Your task to perform on an android device: turn on javascript in the chrome app Image 0: 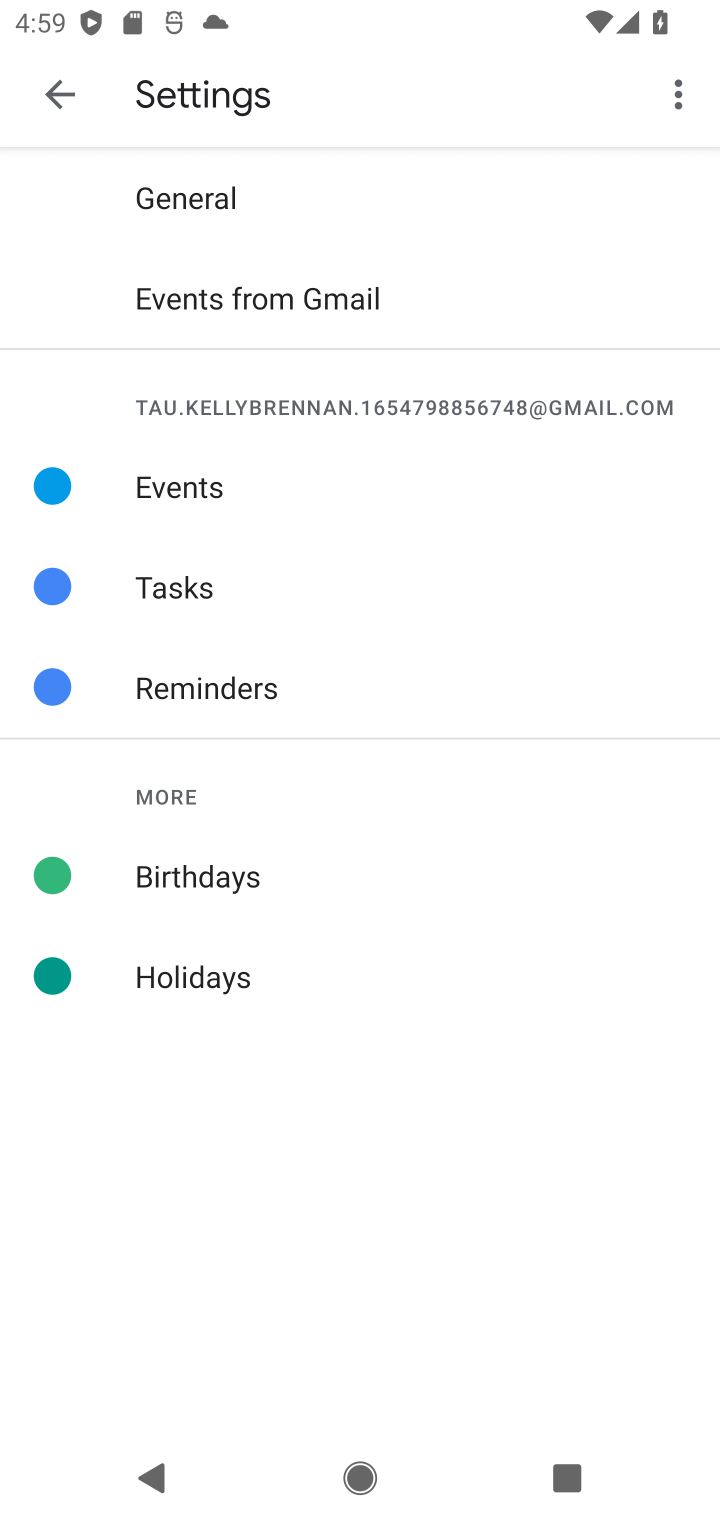
Step 0: press home button
Your task to perform on an android device: turn on javascript in the chrome app Image 1: 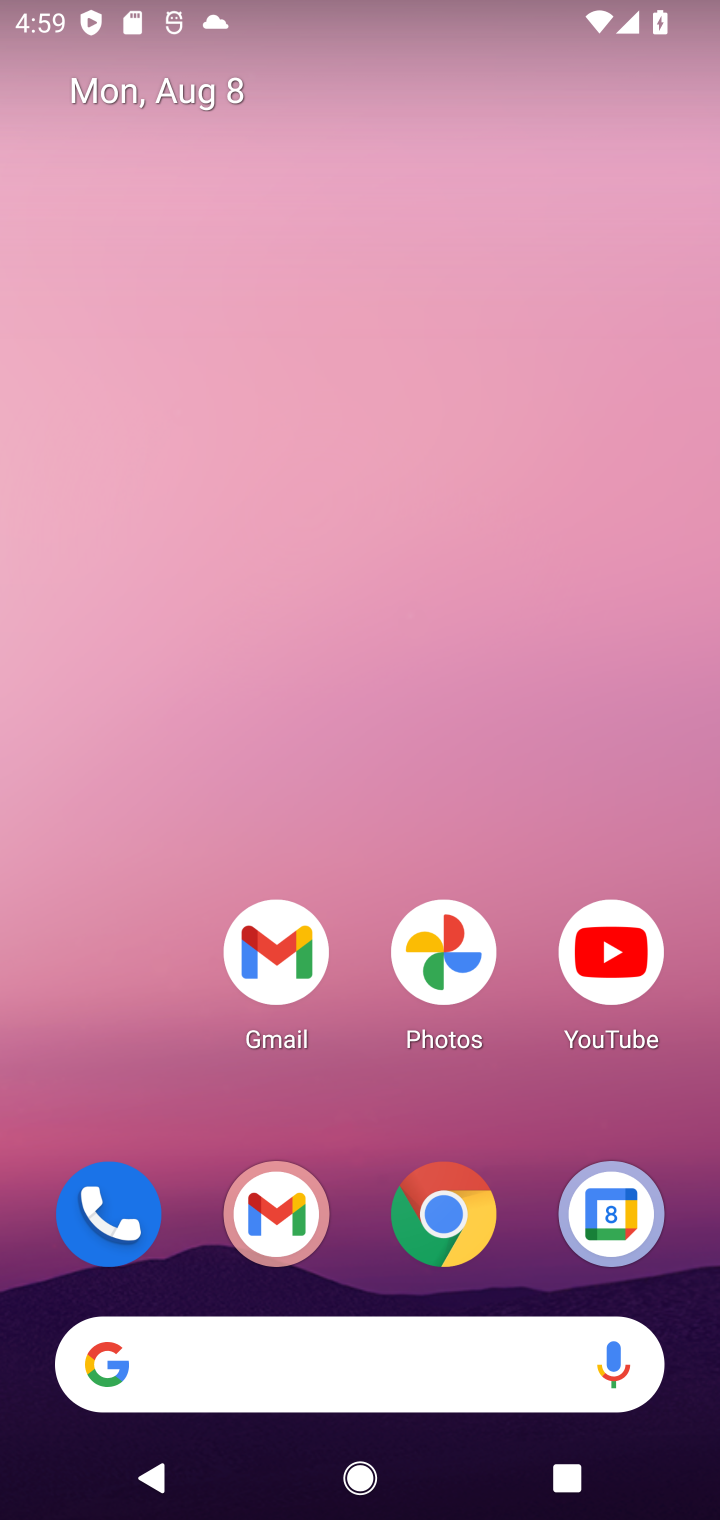
Step 1: click (447, 1203)
Your task to perform on an android device: turn on javascript in the chrome app Image 2: 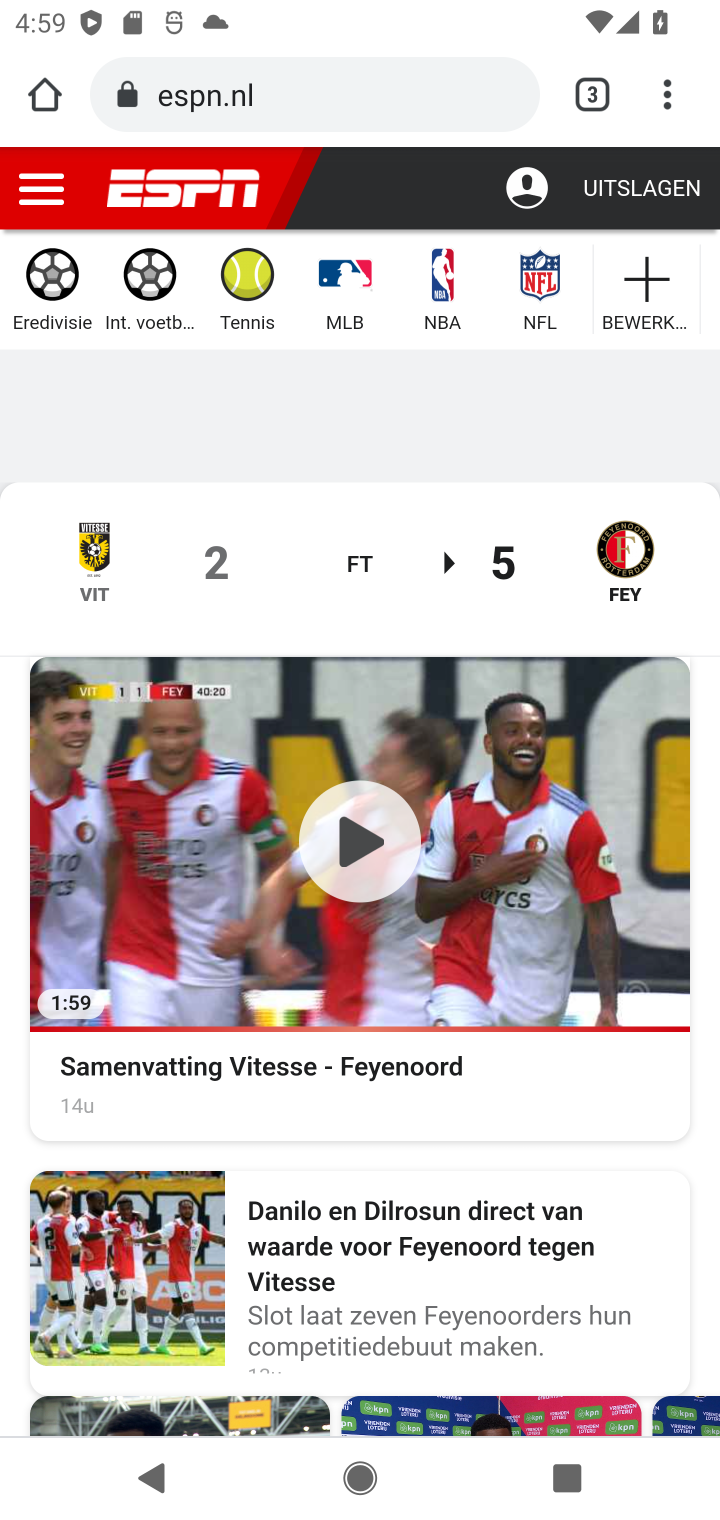
Step 2: click (668, 110)
Your task to perform on an android device: turn on javascript in the chrome app Image 3: 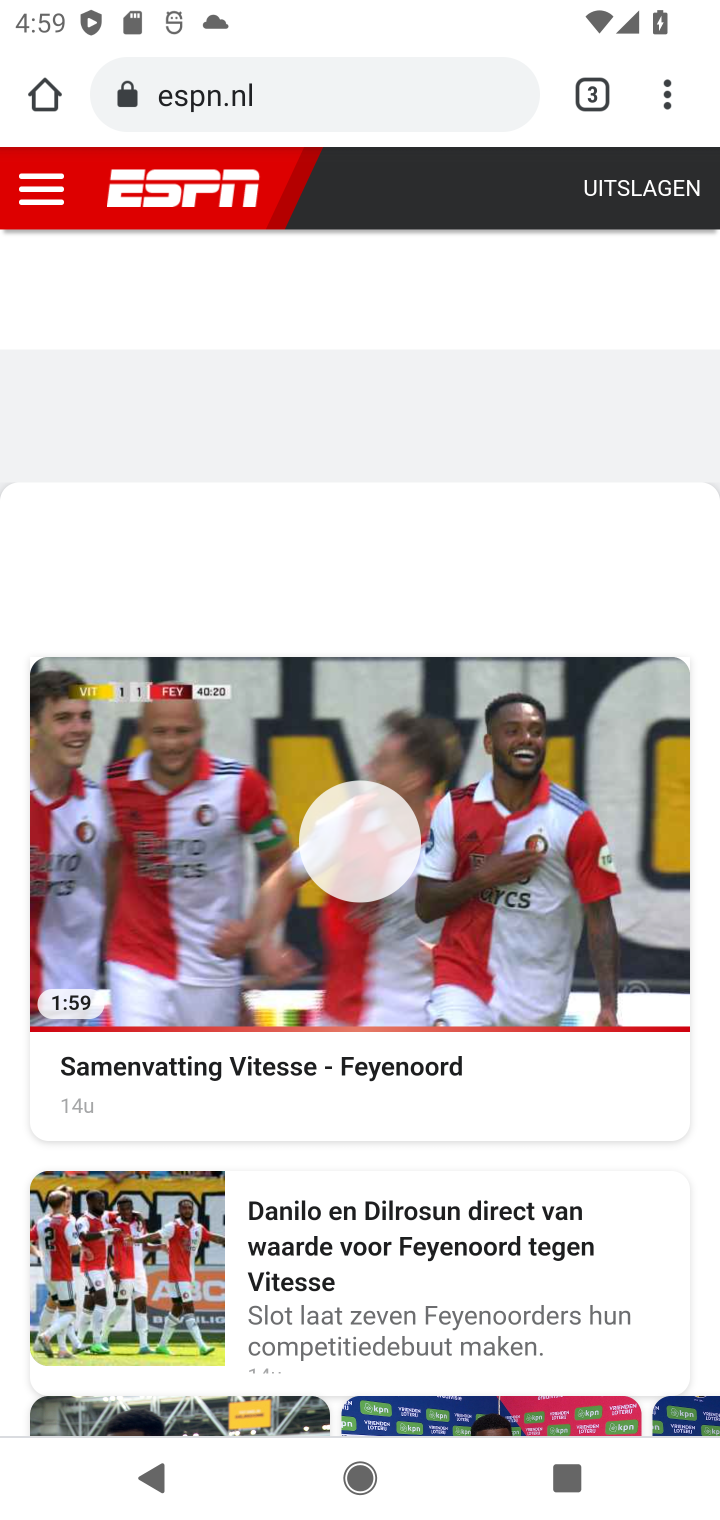
Step 3: drag from (667, 107) to (557, 1213)
Your task to perform on an android device: turn on javascript in the chrome app Image 4: 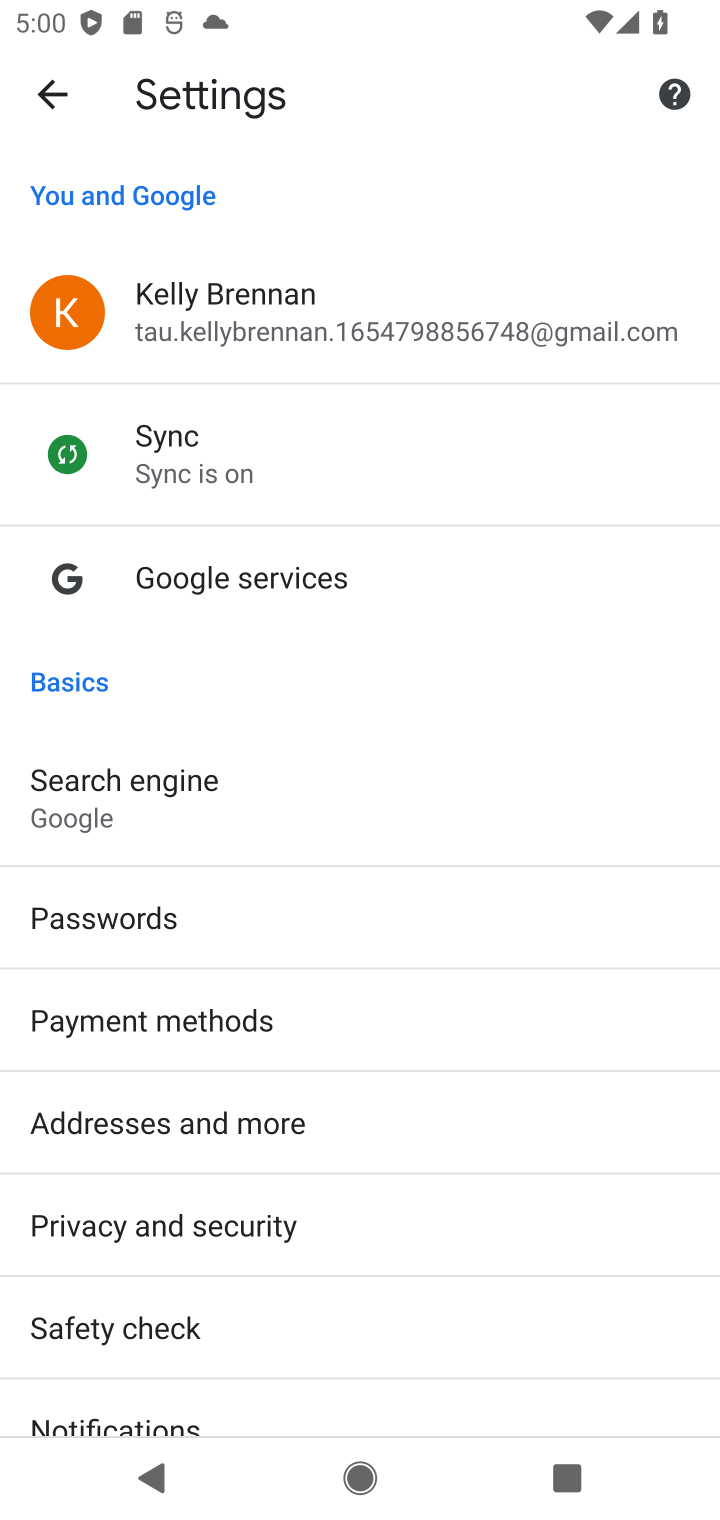
Step 4: drag from (138, 1335) to (142, 825)
Your task to perform on an android device: turn on javascript in the chrome app Image 5: 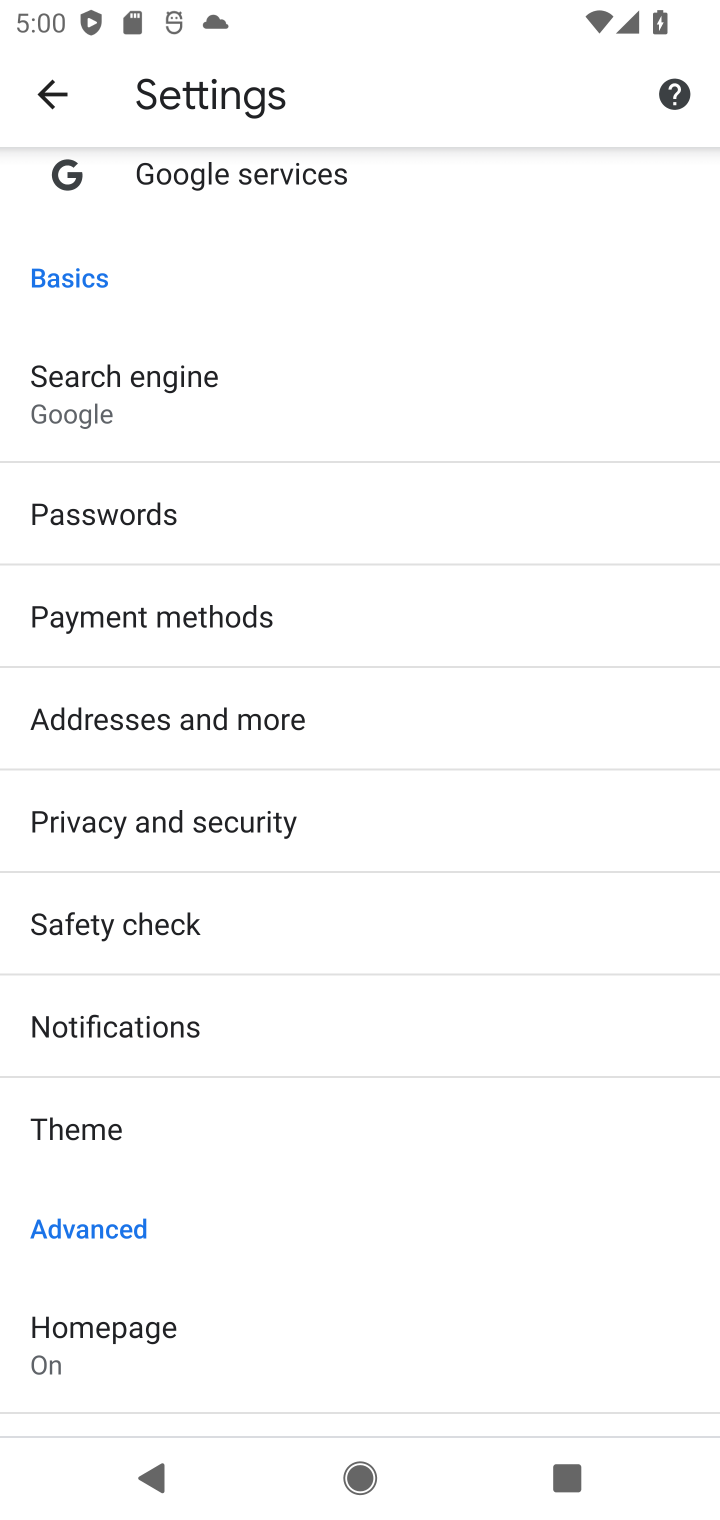
Step 5: drag from (211, 1278) to (188, 638)
Your task to perform on an android device: turn on javascript in the chrome app Image 6: 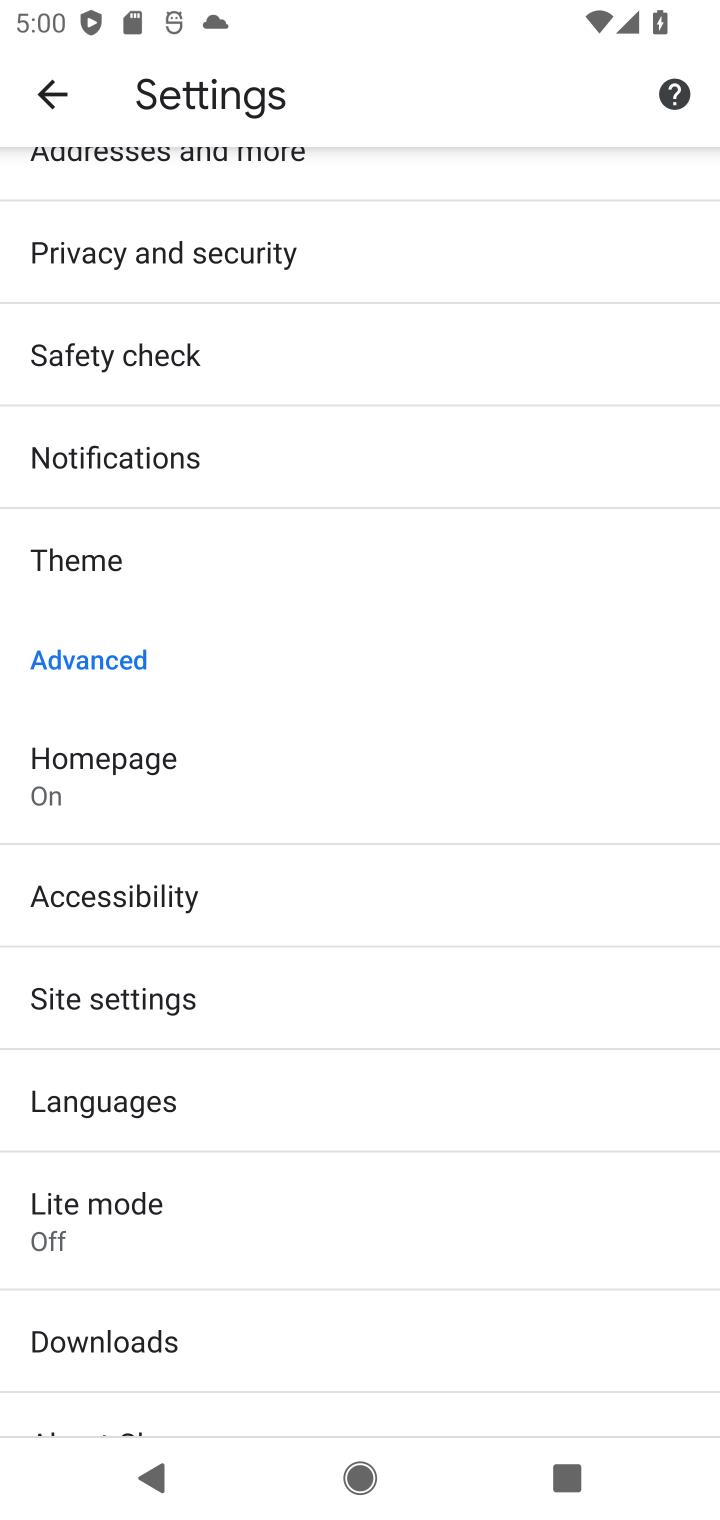
Step 6: click (107, 993)
Your task to perform on an android device: turn on javascript in the chrome app Image 7: 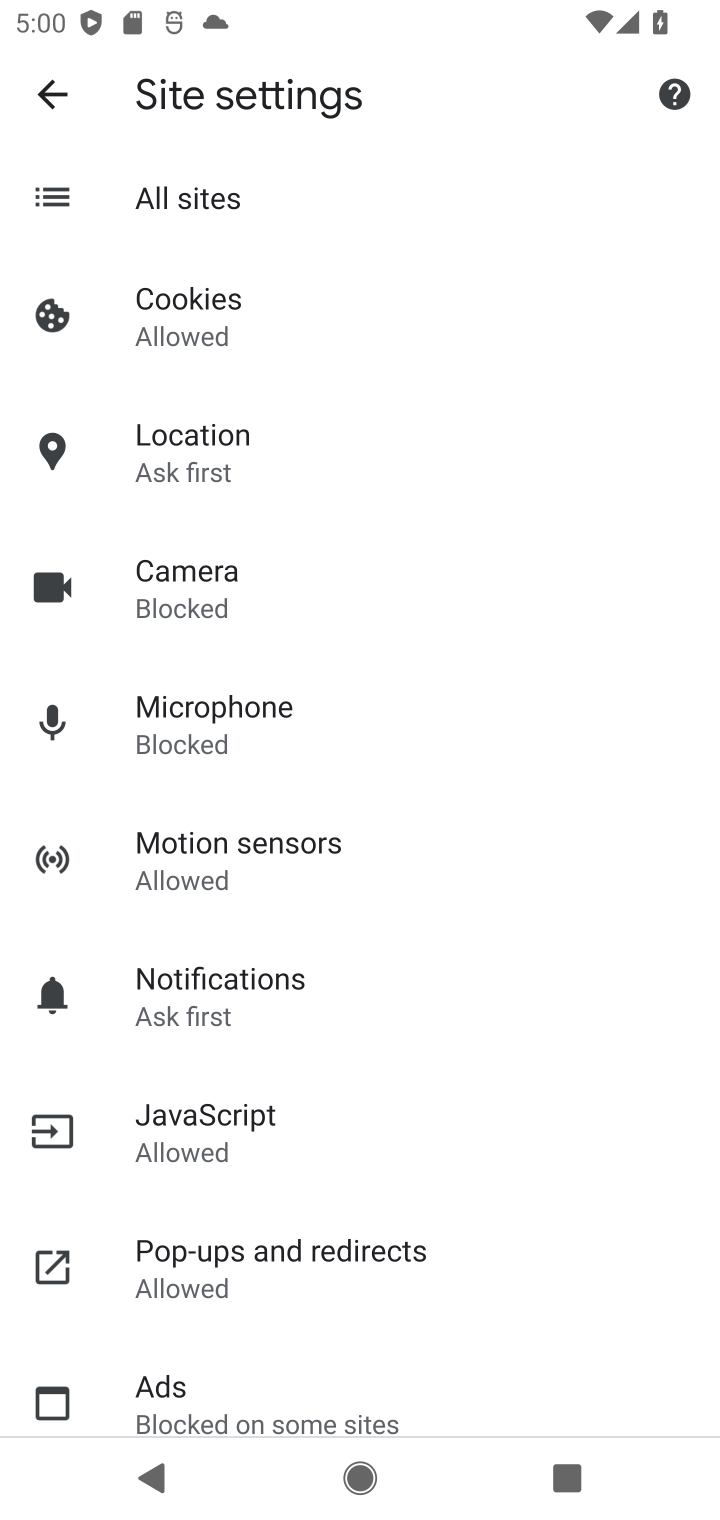
Step 7: click (190, 1131)
Your task to perform on an android device: turn on javascript in the chrome app Image 8: 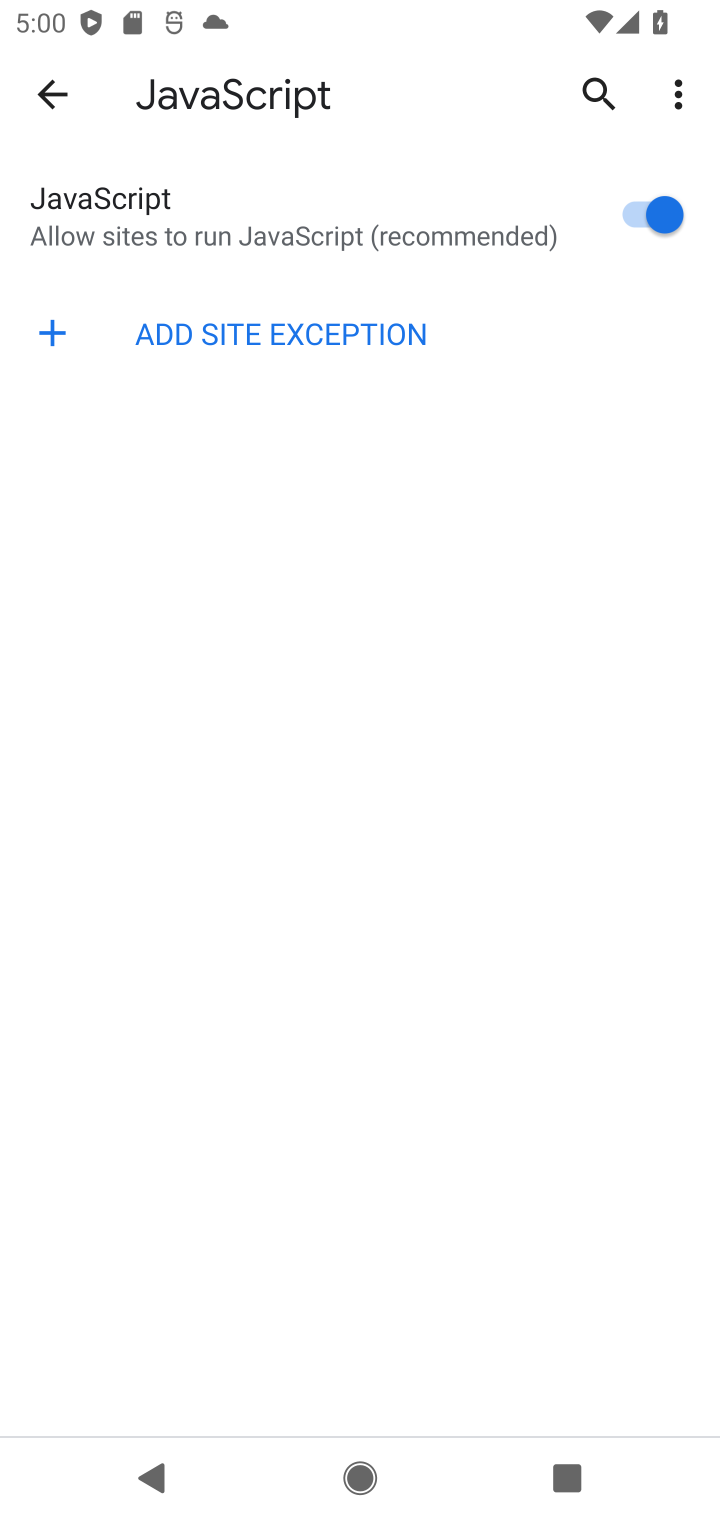
Step 8: task complete